Your task to perform on an android device: Go to calendar. Show me events next week Image 0: 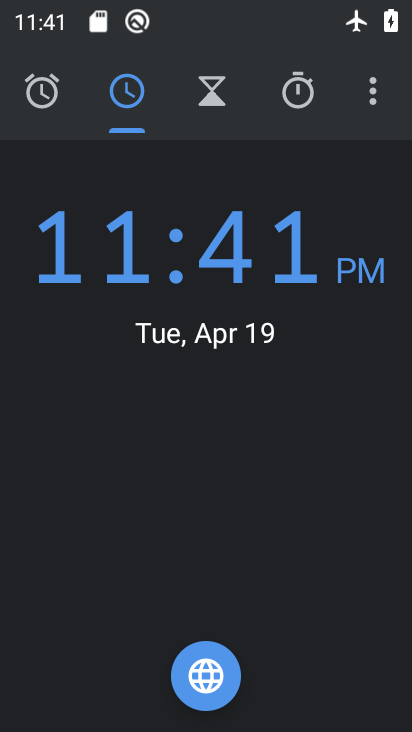
Step 0: press home button
Your task to perform on an android device: Go to calendar. Show me events next week Image 1: 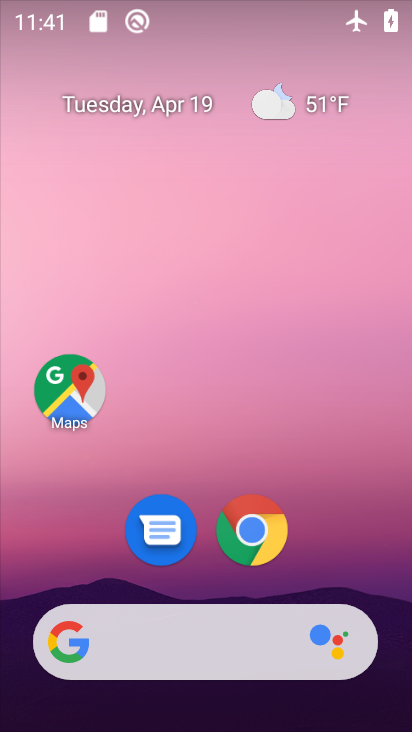
Step 1: drag from (175, 649) to (366, 4)
Your task to perform on an android device: Go to calendar. Show me events next week Image 2: 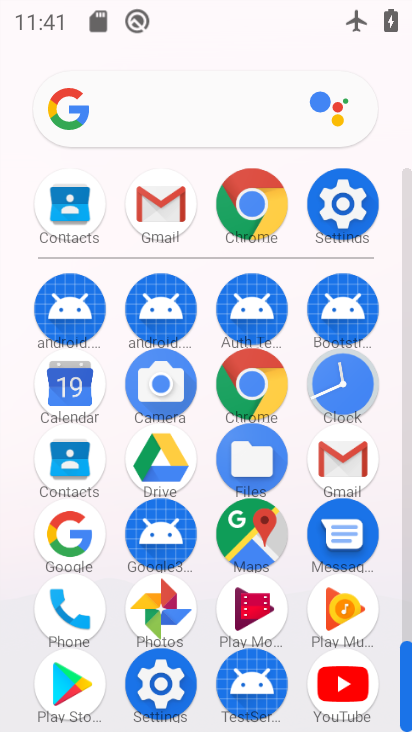
Step 2: click (73, 395)
Your task to perform on an android device: Go to calendar. Show me events next week Image 3: 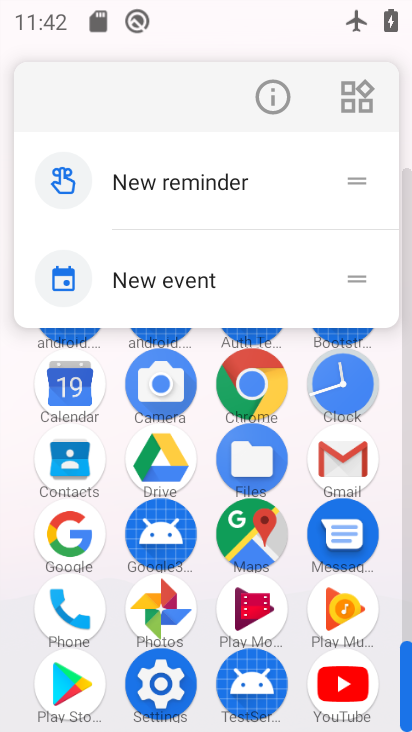
Step 3: click (68, 389)
Your task to perform on an android device: Go to calendar. Show me events next week Image 4: 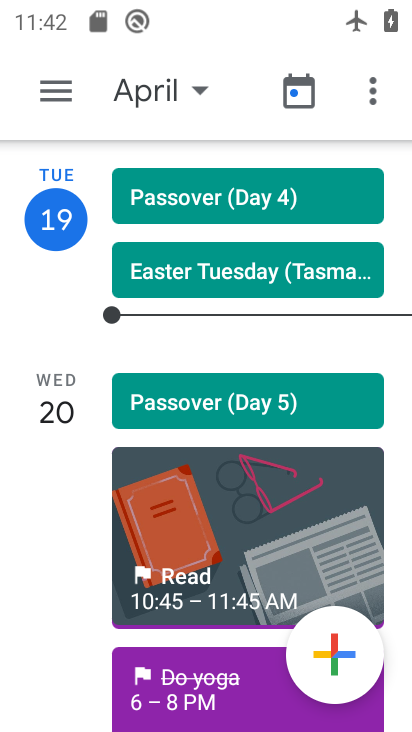
Step 4: click (148, 95)
Your task to perform on an android device: Go to calendar. Show me events next week Image 5: 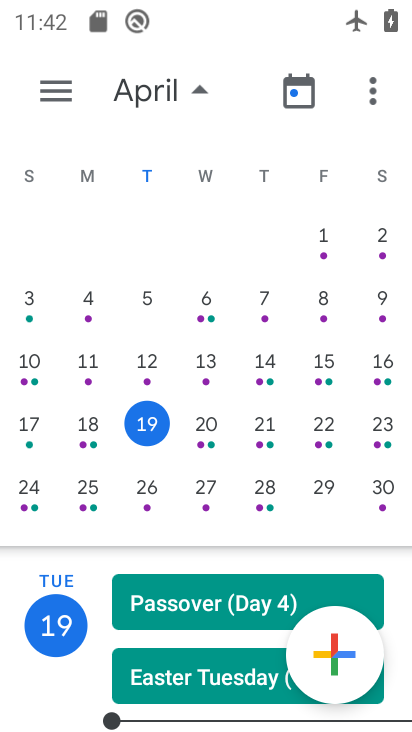
Step 5: drag from (359, 399) to (26, 320)
Your task to perform on an android device: Go to calendar. Show me events next week Image 6: 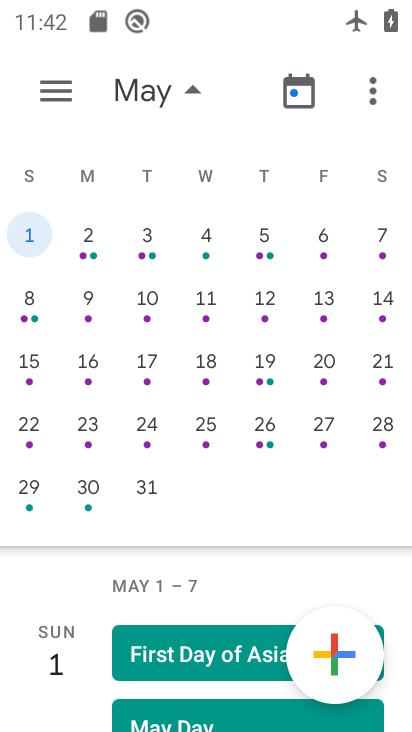
Step 6: click (29, 237)
Your task to perform on an android device: Go to calendar. Show me events next week Image 7: 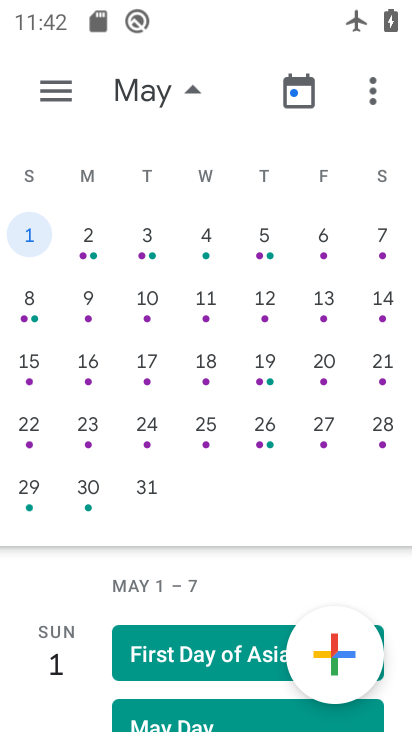
Step 7: click (64, 90)
Your task to perform on an android device: Go to calendar. Show me events next week Image 8: 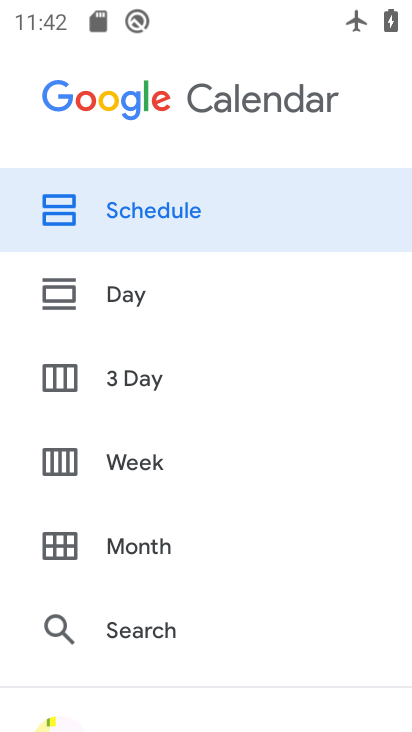
Step 8: click (121, 463)
Your task to perform on an android device: Go to calendar. Show me events next week Image 9: 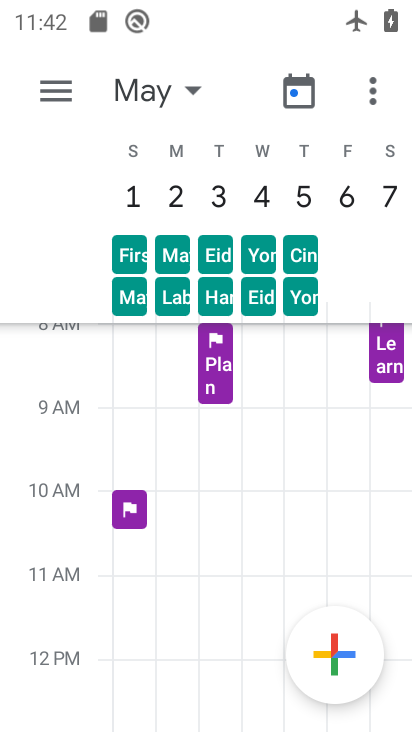
Step 9: drag from (166, 602) to (361, 90)
Your task to perform on an android device: Go to calendar. Show me events next week Image 10: 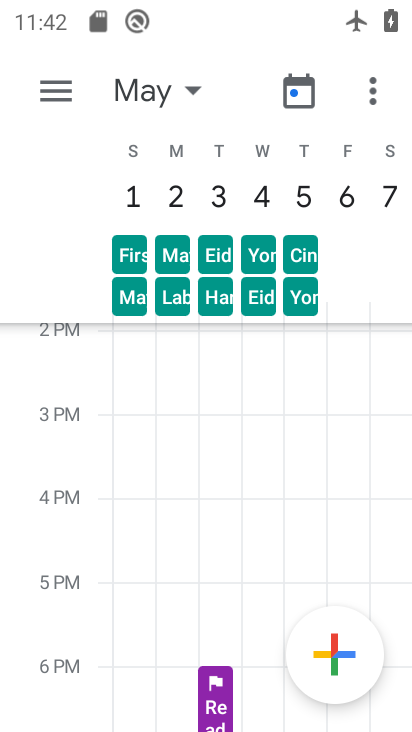
Step 10: drag from (260, 381) to (225, 672)
Your task to perform on an android device: Go to calendar. Show me events next week Image 11: 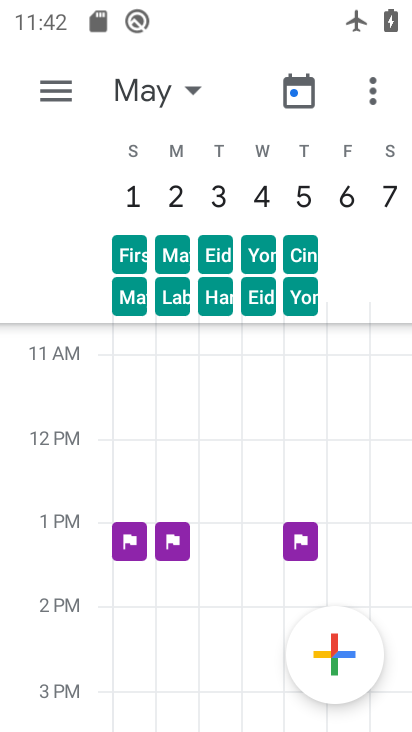
Step 11: click (136, 542)
Your task to perform on an android device: Go to calendar. Show me events next week Image 12: 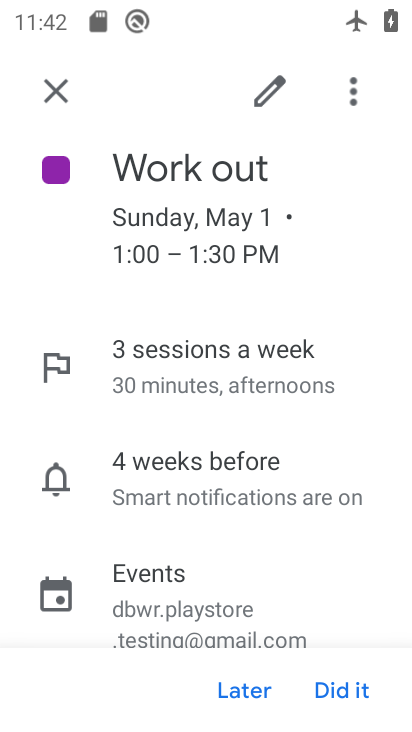
Step 12: task complete